Your task to perform on an android device: visit the assistant section in the google photos Image 0: 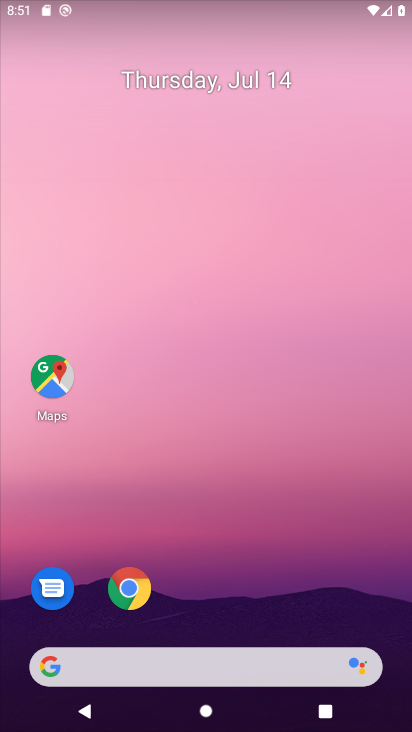
Step 0: drag from (256, 623) to (247, 116)
Your task to perform on an android device: visit the assistant section in the google photos Image 1: 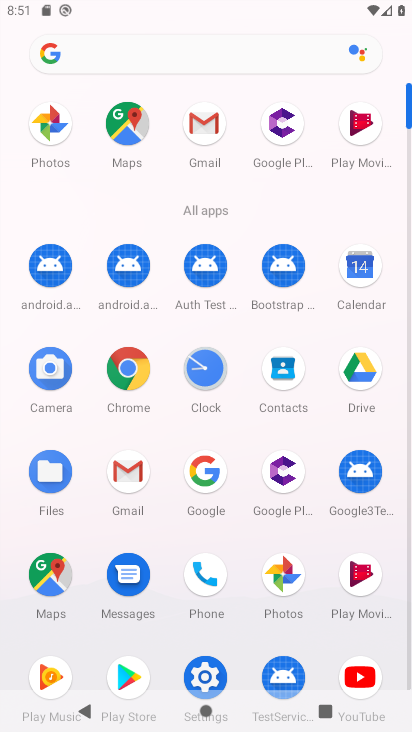
Step 1: click (278, 564)
Your task to perform on an android device: visit the assistant section in the google photos Image 2: 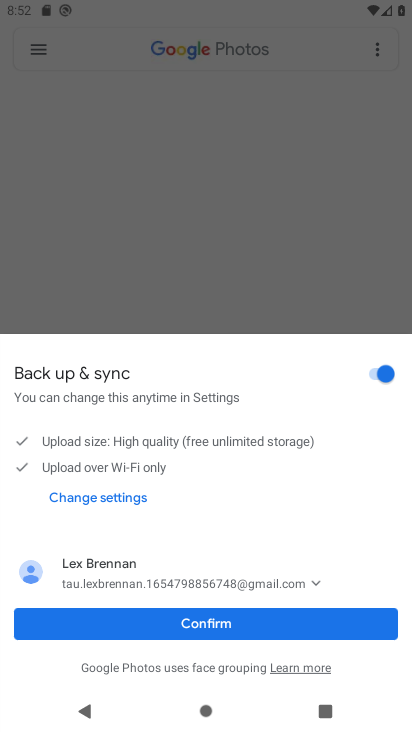
Step 2: click (182, 625)
Your task to perform on an android device: visit the assistant section in the google photos Image 3: 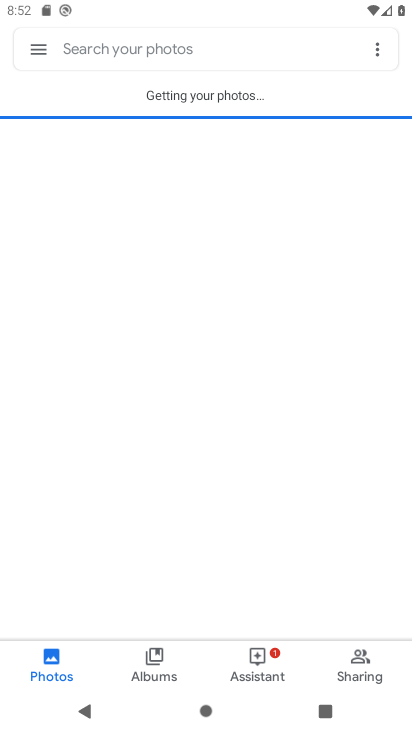
Step 3: click (259, 653)
Your task to perform on an android device: visit the assistant section in the google photos Image 4: 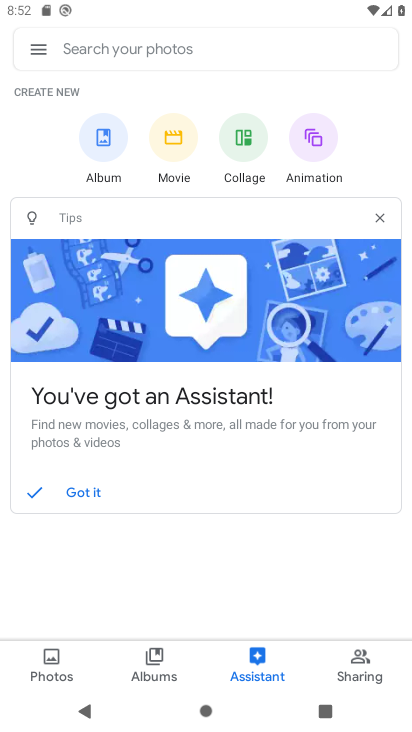
Step 4: task complete